Your task to perform on an android device: turn on notifications settings in the gmail app Image 0: 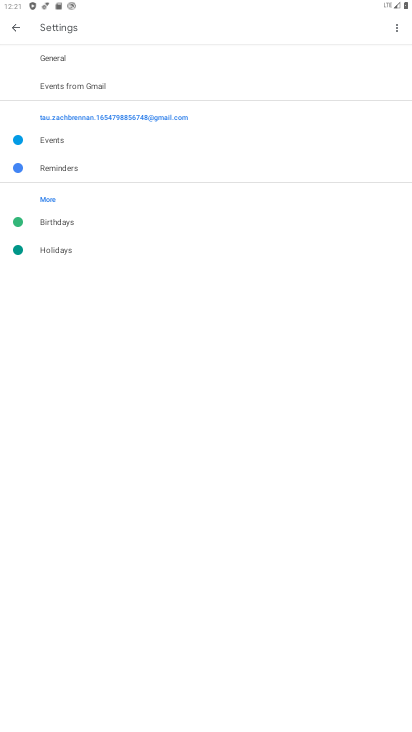
Step 0: press home button
Your task to perform on an android device: turn on notifications settings in the gmail app Image 1: 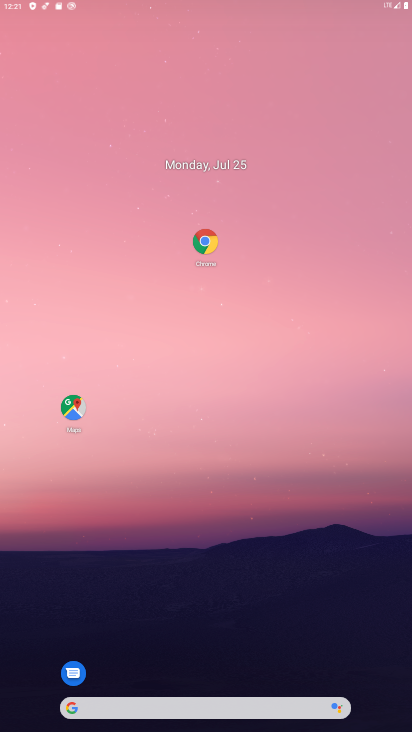
Step 1: drag from (291, 706) to (346, 1)
Your task to perform on an android device: turn on notifications settings in the gmail app Image 2: 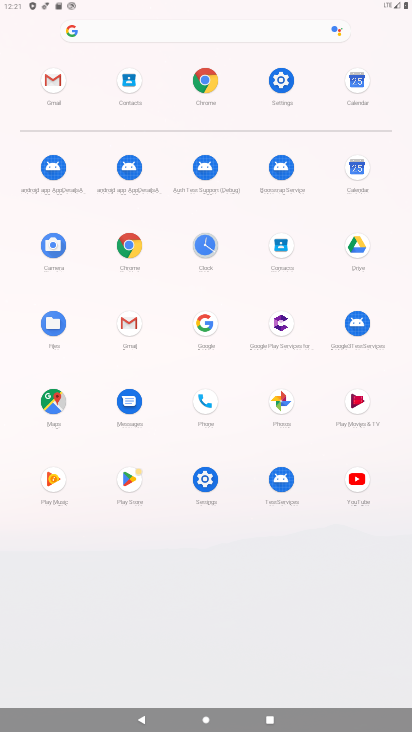
Step 2: click (126, 315)
Your task to perform on an android device: turn on notifications settings in the gmail app Image 3: 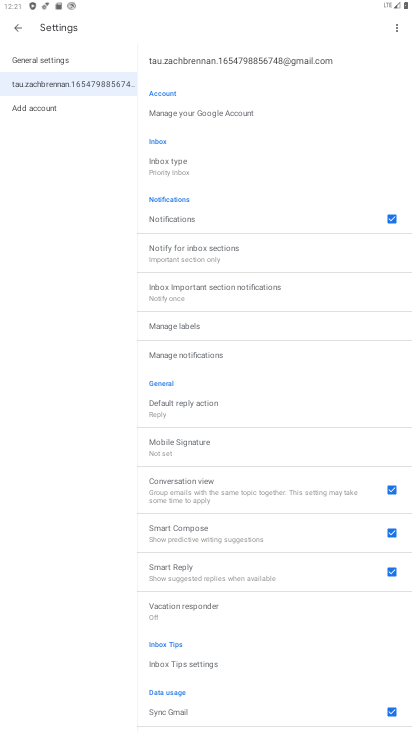
Step 3: click (209, 353)
Your task to perform on an android device: turn on notifications settings in the gmail app Image 4: 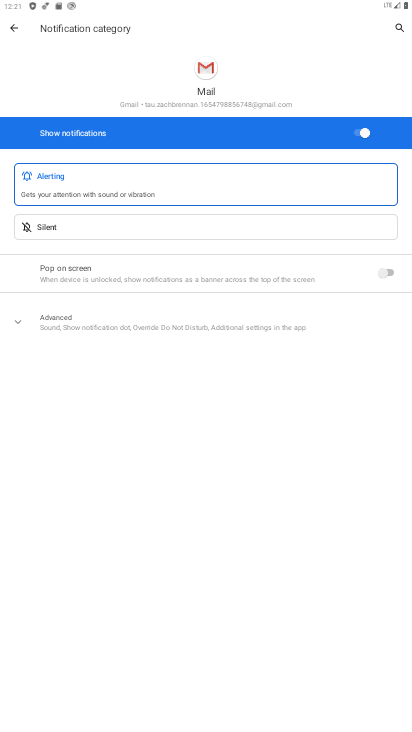
Step 4: task complete